Your task to perform on an android device: turn on showing notifications on the lock screen Image 0: 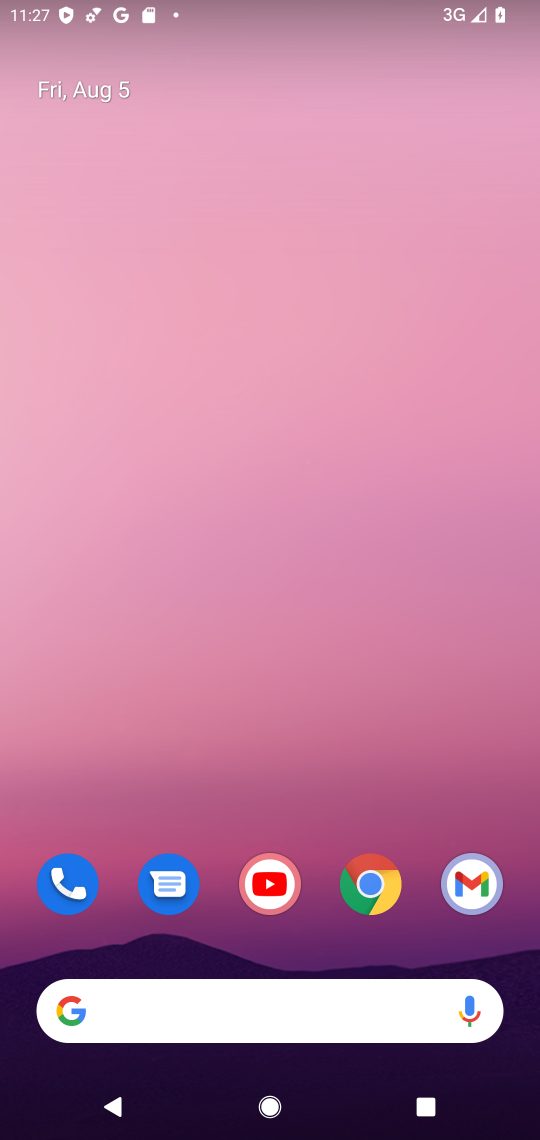
Step 0: drag from (314, 797) to (311, 26)
Your task to perform on an android device: turn on showing notifications on the lock screen Image 1: 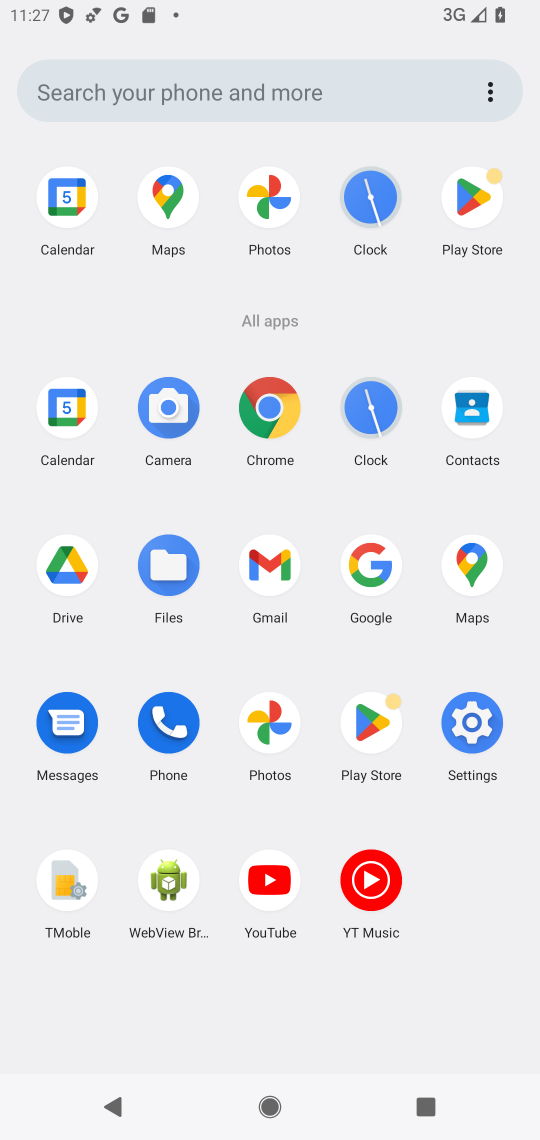
Step 1: click (480, 723)
Your task to perform on an android device: turn on showing notifications on the lock screen Image 2: 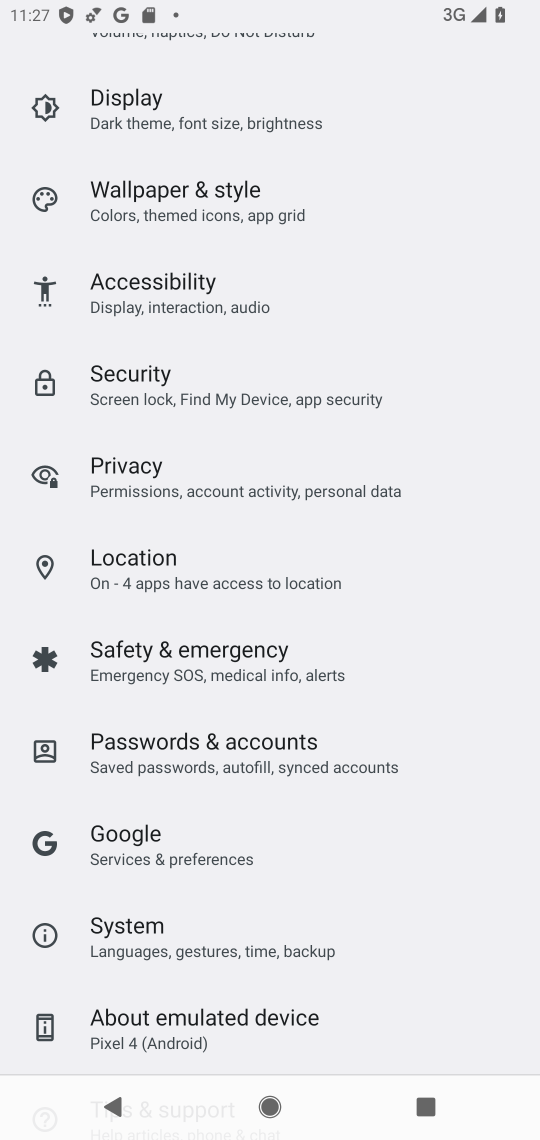
Step 2: drag from (260, 135) to (317, 602)
Your task to perform on an android device: turn on showing notifications on the lock screen Image 3: 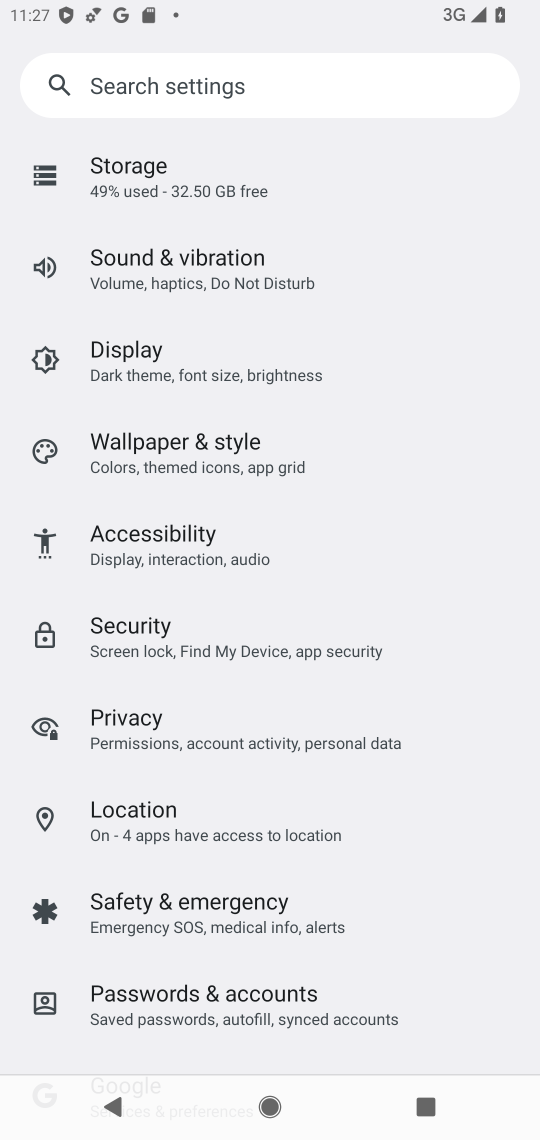
Step 3: drag from (259, 162) to (345, 481)
Your task to perform on an android device: turn on showing notifications on the lock screen Image 4: 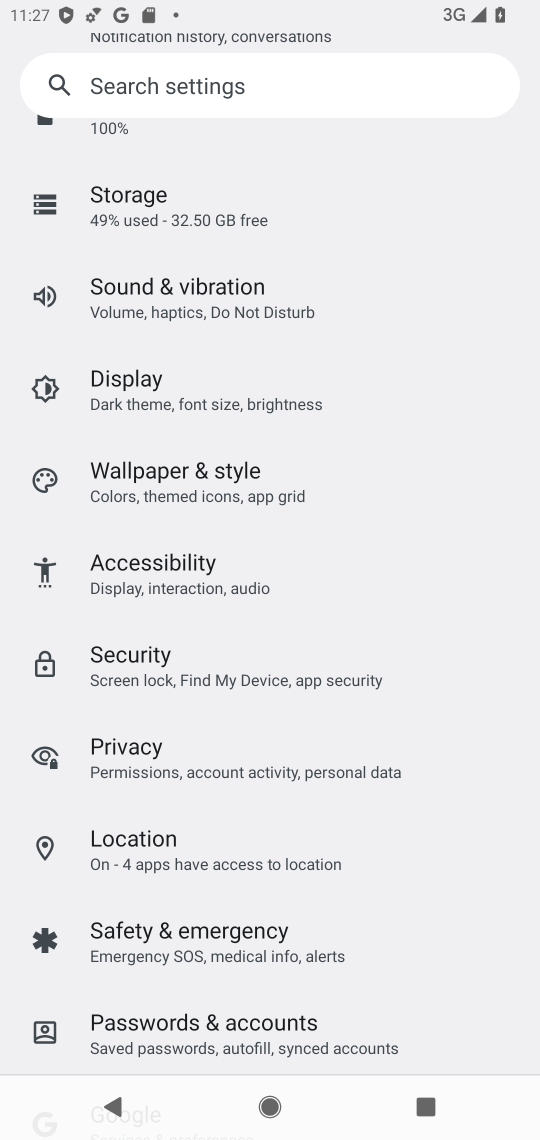
Step 4: drag from (305, 315) to (475, 890)
Your task to perform on an android device: turn on showing notifications on the lock screen Image 5: 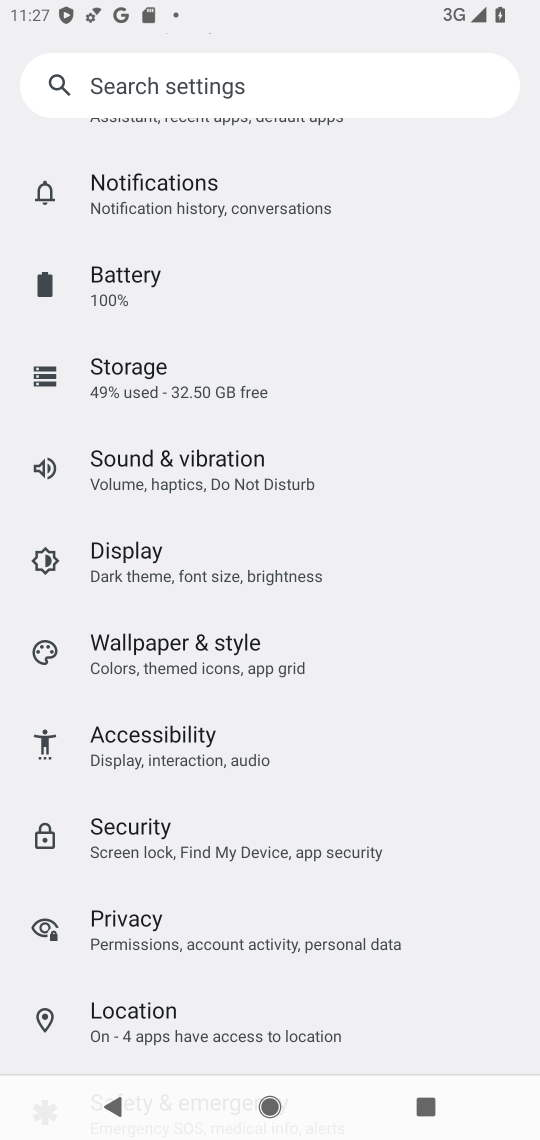
Step 5: click (298, 185)
Your task to perform on an android device: turn on showing notifications on the lock screen Image 6: 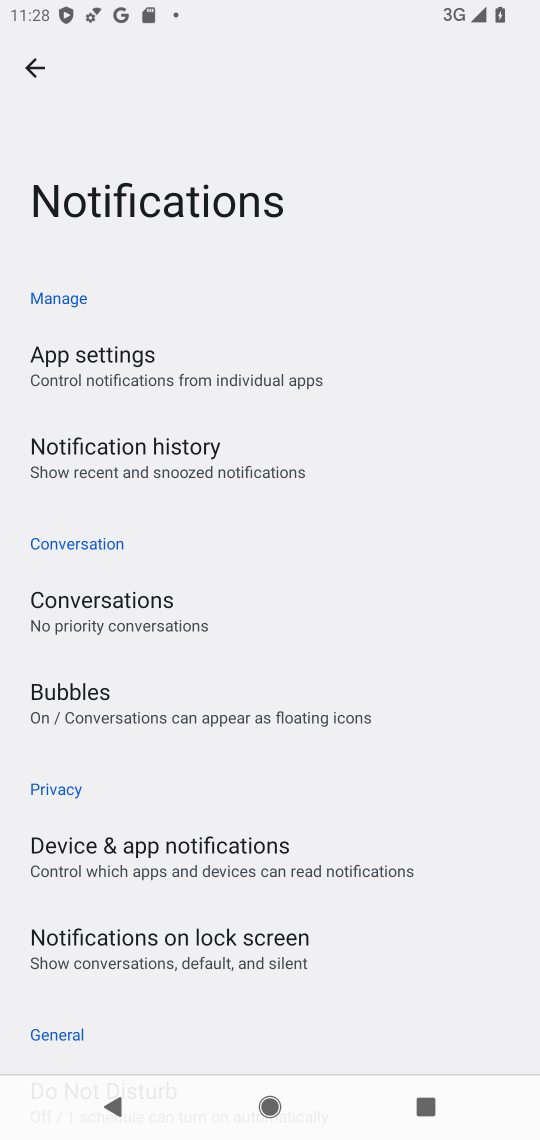
Step 6: click (193, 942)
Your task to perform on an android device: turn on showing notifications on the lock screen Image 7: 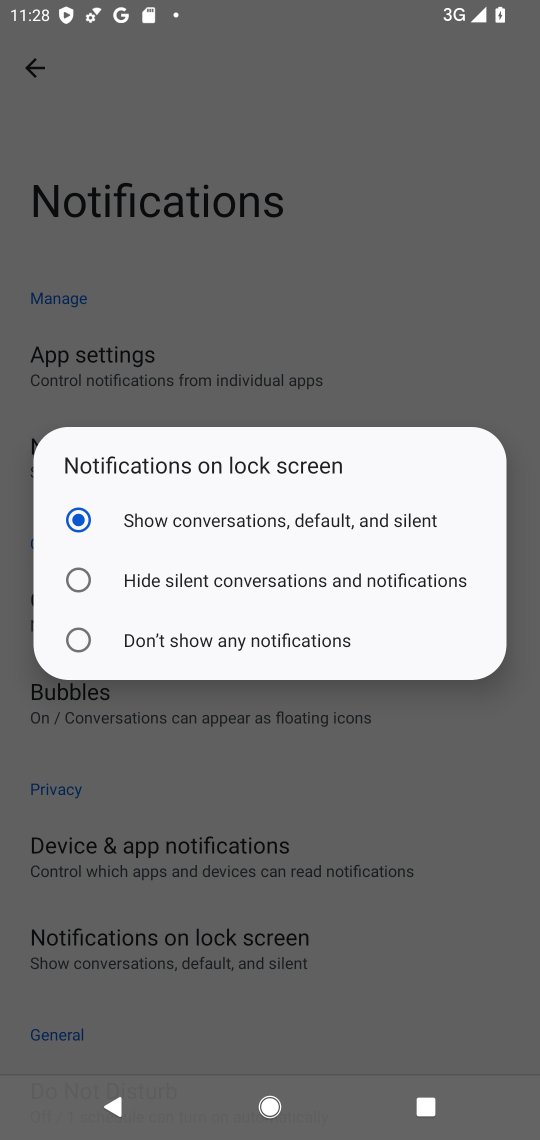
Step 7: click (171, 534)
Your task to perform on an android device: turn on showing notifications on the lock screen Image 8: 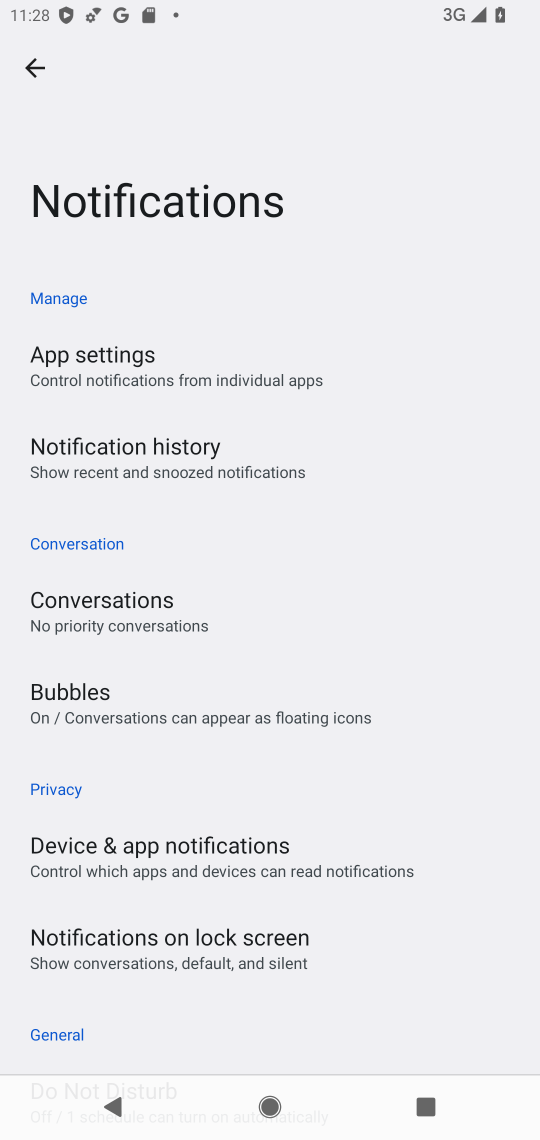
Step 8: task complete